Your task to perform on an android device: See recent photos Image 0: 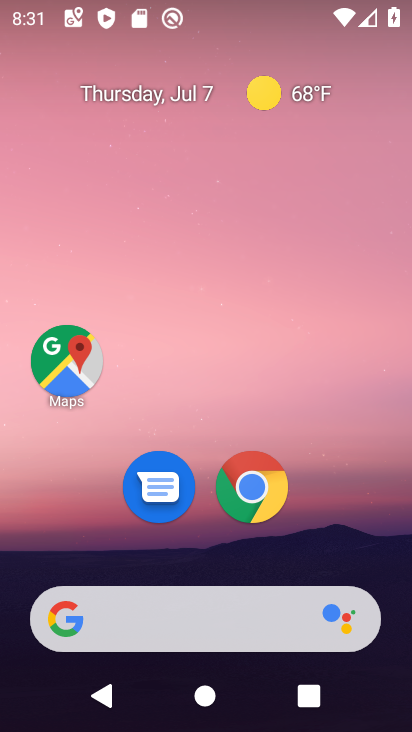
Step 0: drag from (222, 549) to (306, 681)
Your task to perform on an android device: See recent photos Image 1: 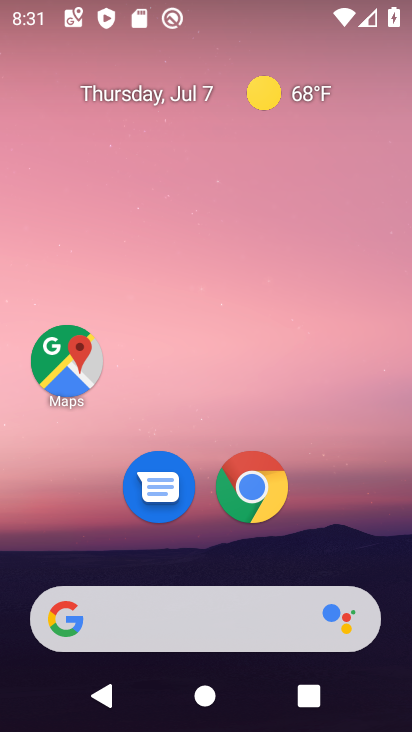
Step 1: drag from (189, 565) to (198, 42)
Your task to perform on an android device: See recent photos Image 2: 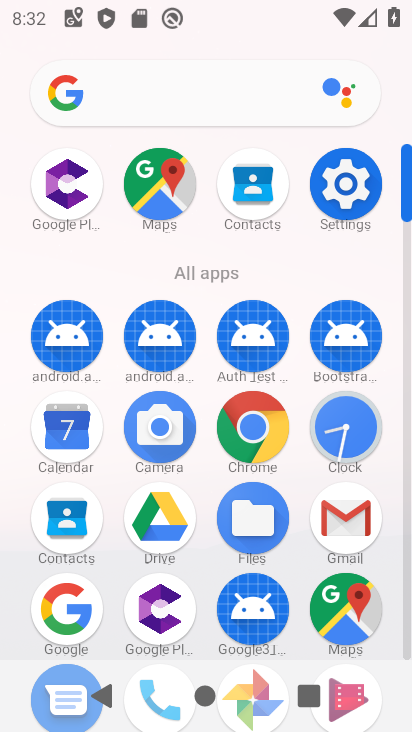
Step 2: drag from (196, 632) to (170, 305)
Your task to perform on an android device: See recent photos Image 3: 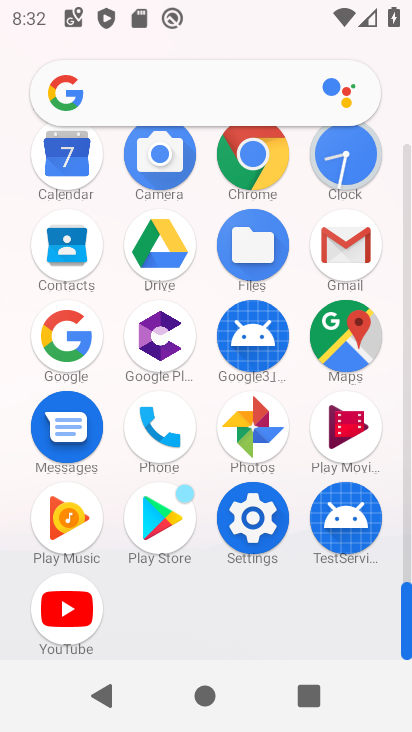
Step 3: click (234, 450)
Your task to perform on an android device: See recent photos Image 4: 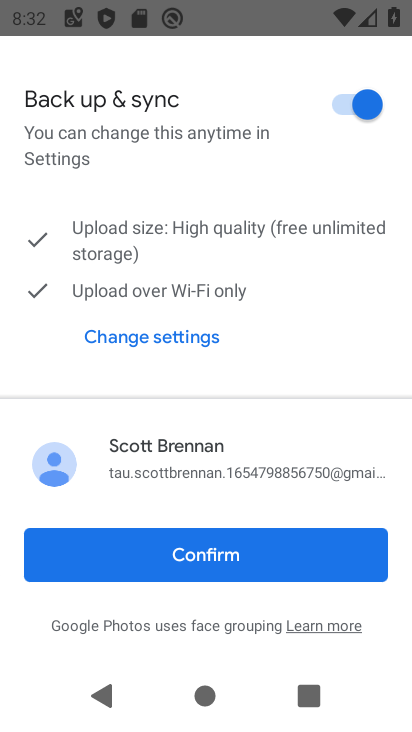
Step 4: click (236, 552)
Your task to perform on an android device: See recent photos Image 5: 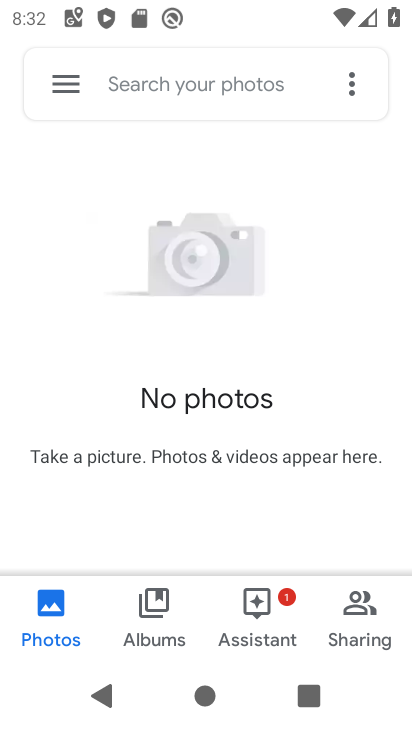
Step 5: drag from (187, 190) to (197, 490)
Your task to perform on an android device: See recent photos Image 6: 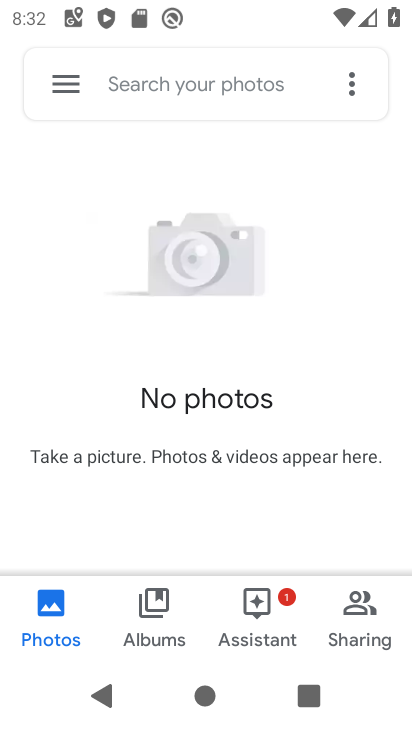
Step 6: press home button
Your task to perform on an android device: See recent photos Image 7: 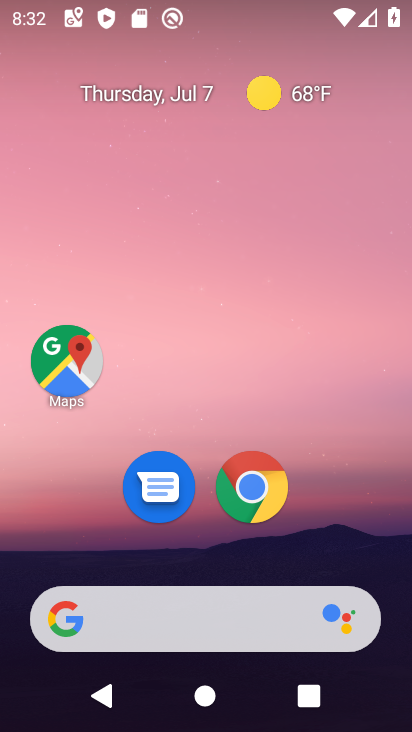
Step 7: drag from (208, 575) to (359, 26)
Your task to perform on an android device: See recent photos Image 8: 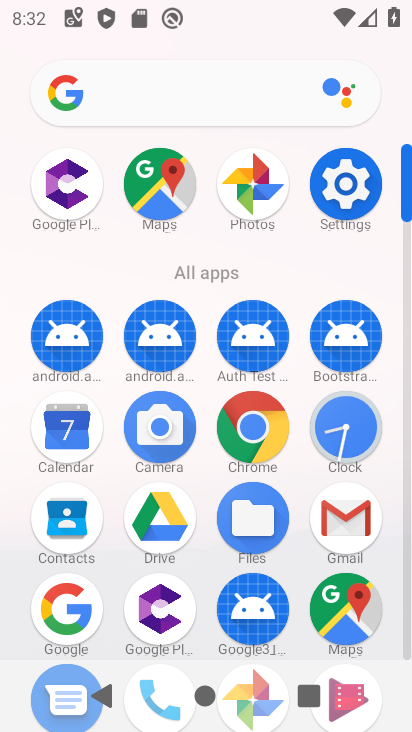
Step 8: click (235, 176)
Your task to perform on an android device: See recent photos Image 9: 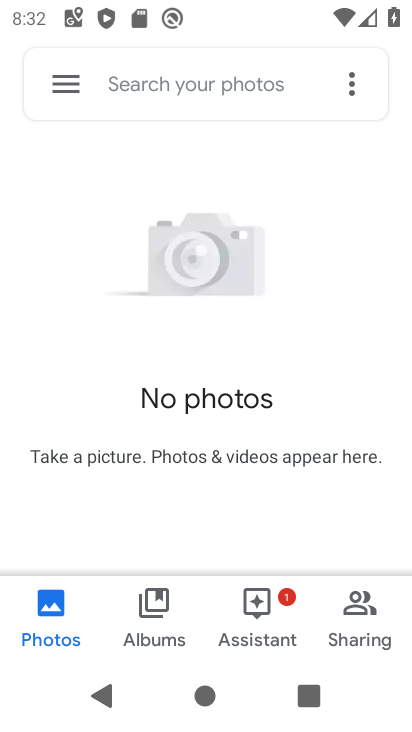
Step 9: task complete